Your task to perform on an android device: Go to Wikipedia Image 0: 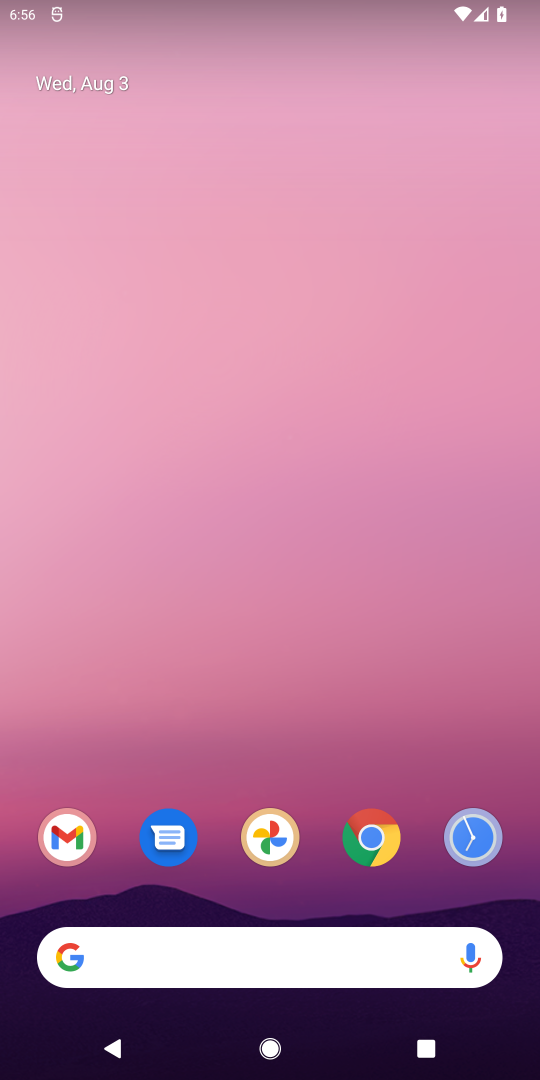
Step 0: press home button
Your task to perform on an android device: Go to Wikipedia Image 1: 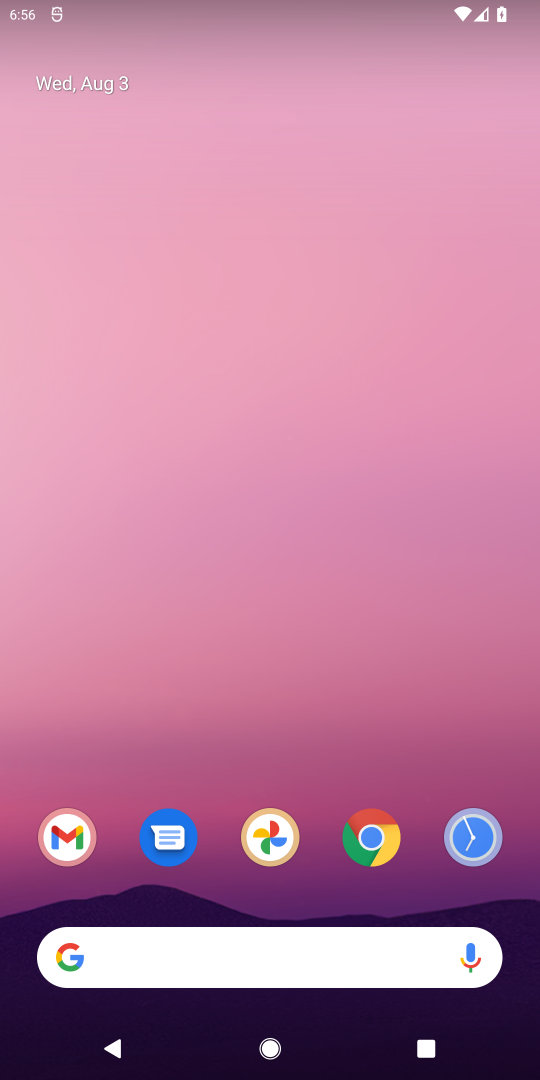
Step 1: drag from (326, 760) to (281, 151)
Your task to perform on an android device: Go to Wikipedia Image 2: 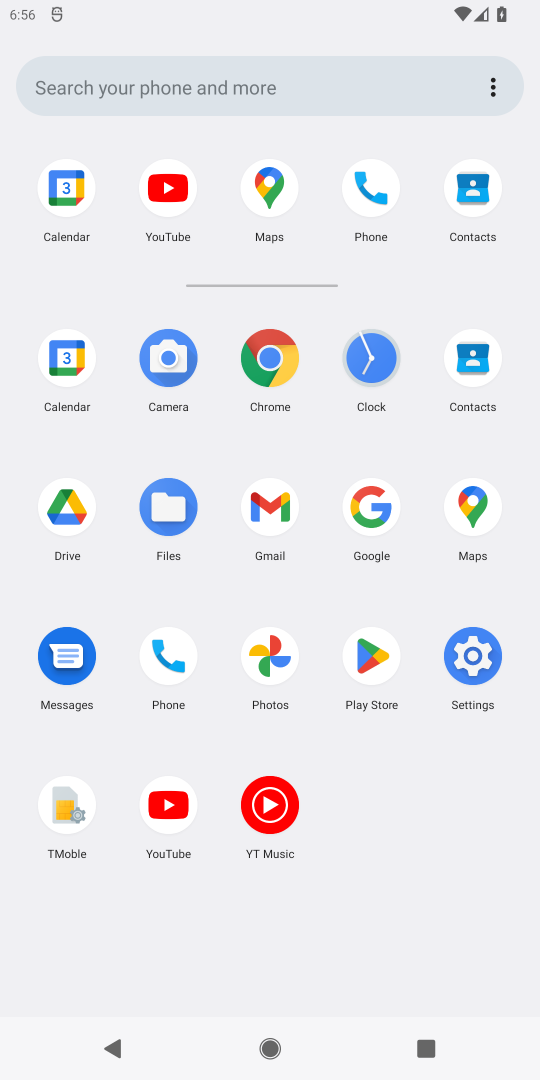
Step 2: click (385, 502)
Your task to perform on an android device: Go to Wikipedia Image 3: 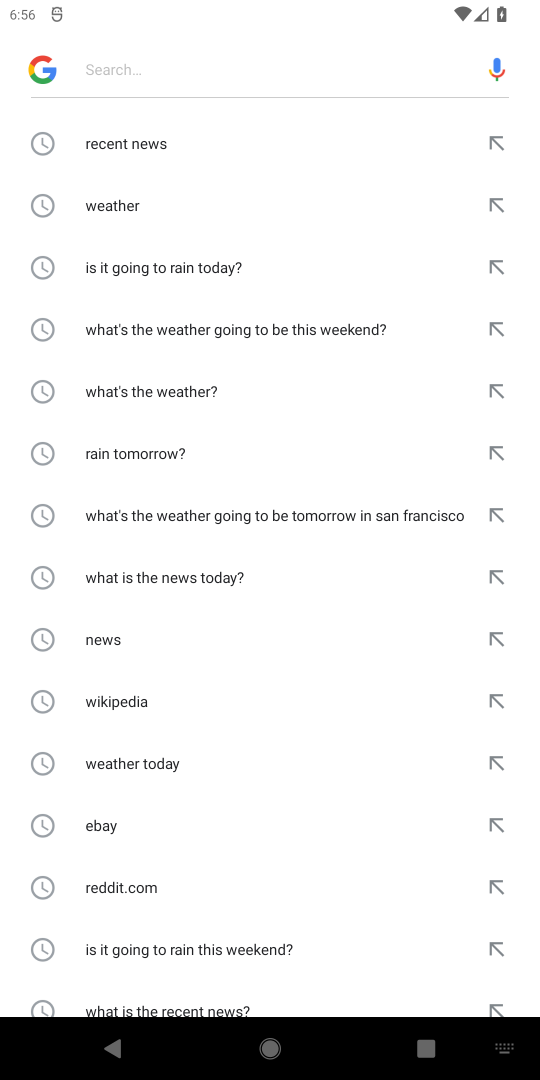
Step 3: type "Wikipedia"
Your task to perform on an android device: Go to Wikipedia Image 4: 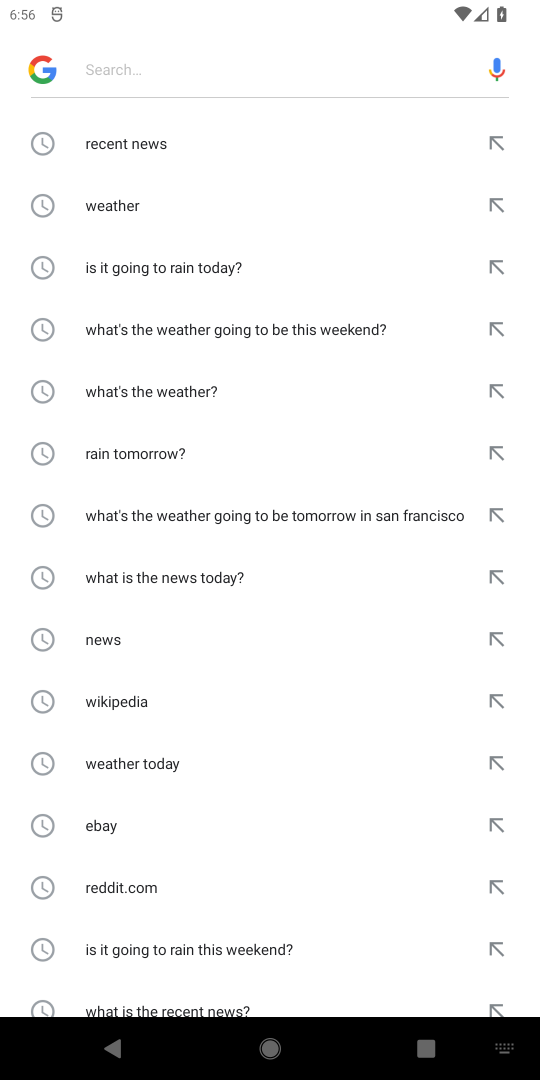
Step 4: click (124, 75)
Your task to perform on an android device: Go to Wikipedia Image 5: 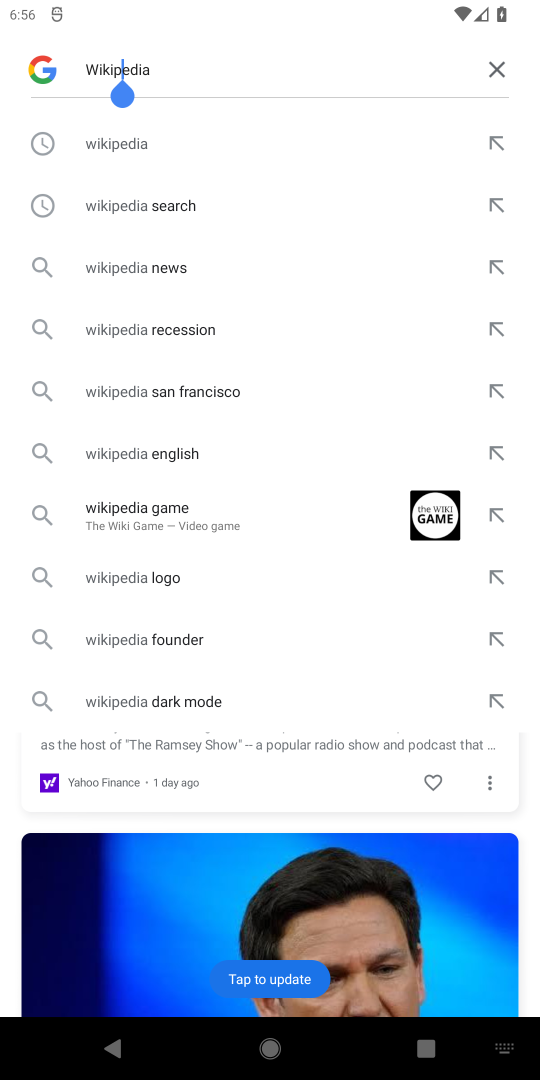
Step 5: click (117, 149)
Your task to perform on an android device: Go to Wikipedia Image 6: 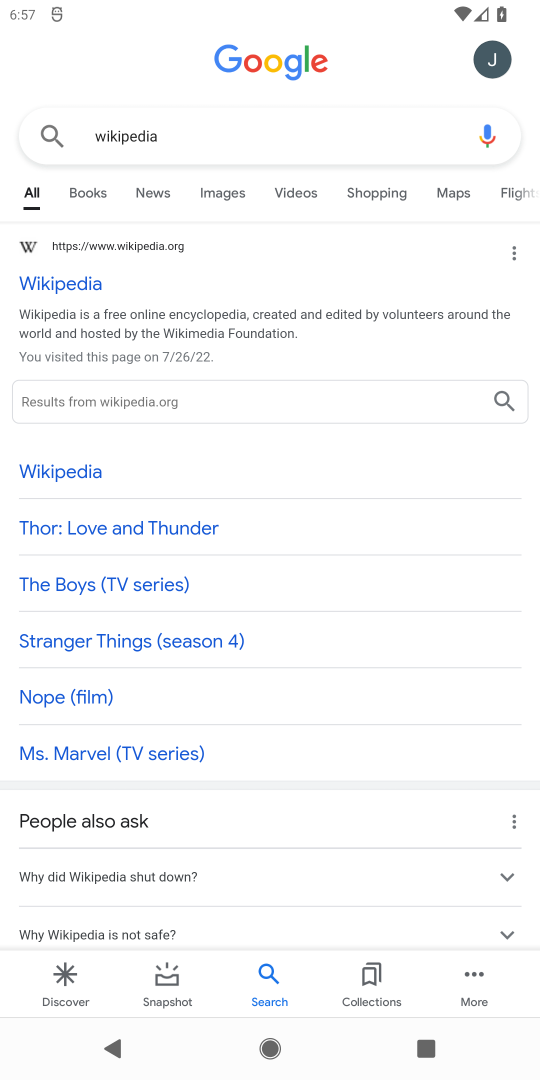
Step 6: click (64, 280)
Your task to perform on an android device: Go to Wikipedia Image 7: 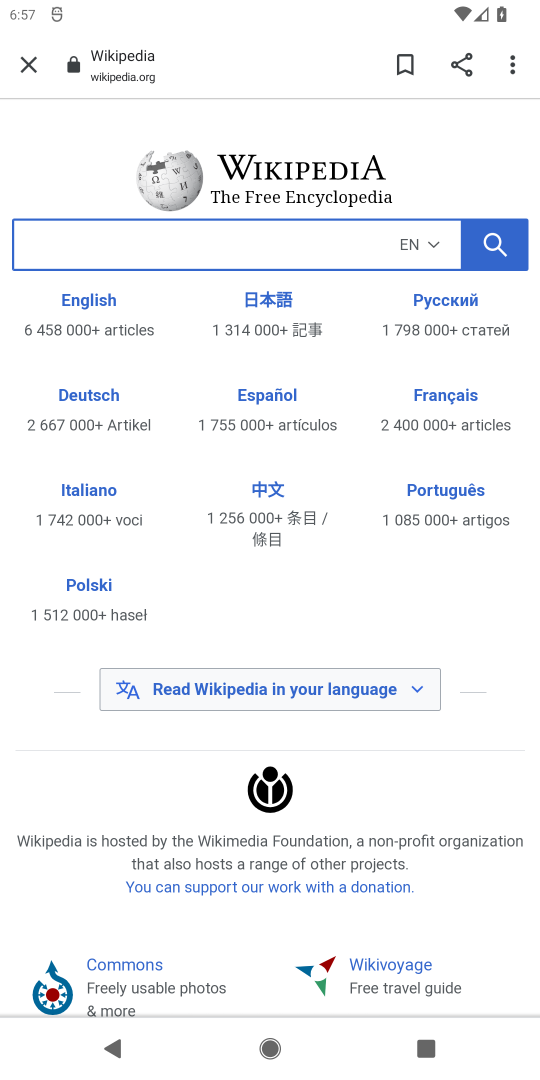
Step 7: task complete